Your task to perform on an android device: Open location settings Image 0: 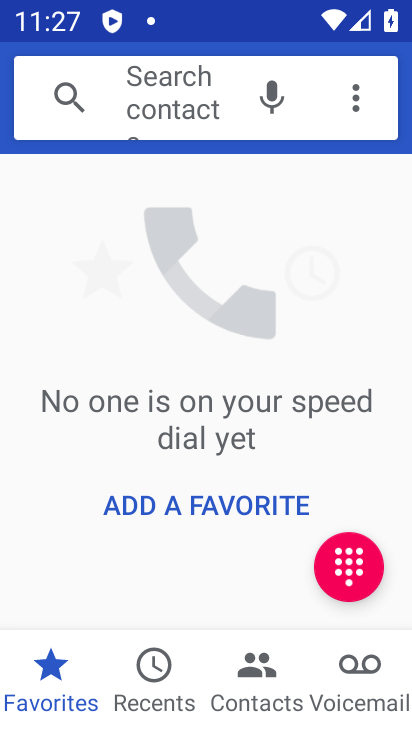
Step 0: task impossible